Your task to perform on an android device: change notifications settings Image 0: 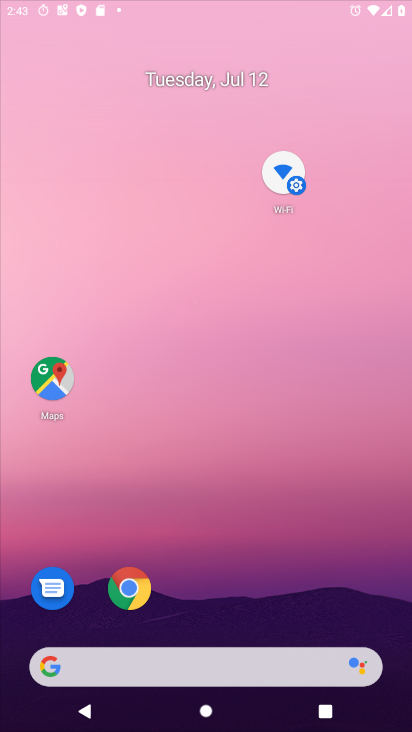
Step 0: click (308, 257)
Your task to perform on an android device: change notifications settings Image 1: 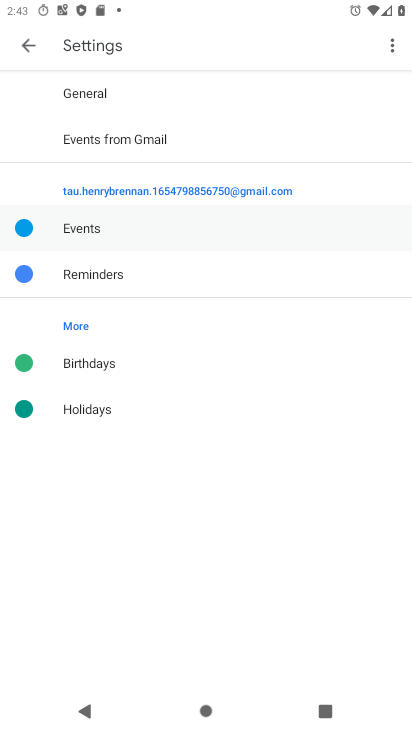
Step 1: drag from (186, 601) to (259, 54)
Your task to perform on an android device: change notifications settings Image 2: 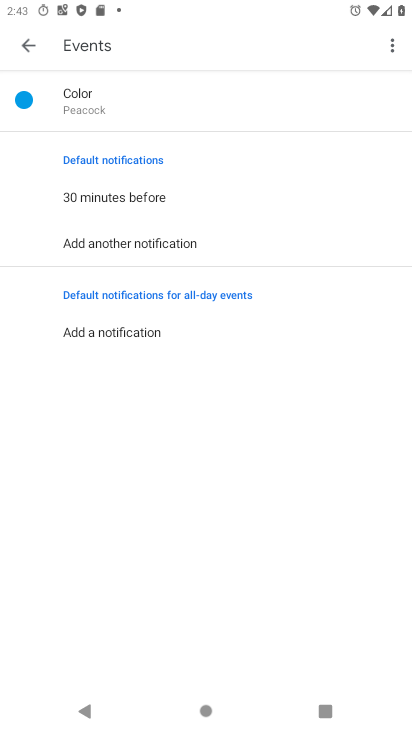
Step 2: press home button
Your task to perform on an android device: change notifications settings Image 3: 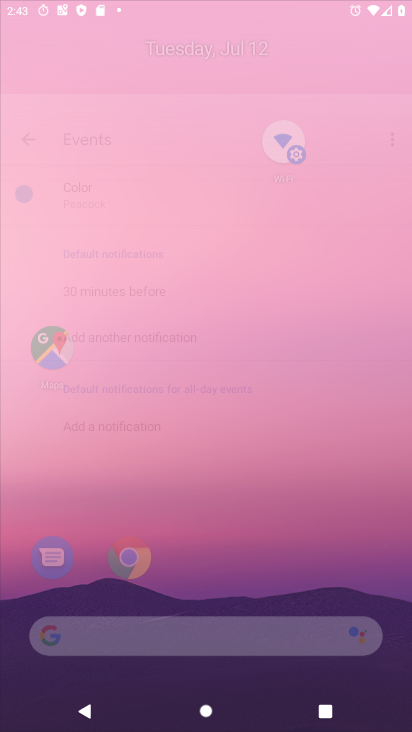
Step 3: drag from (152, 587) to (276, 65)
Your task to perform on an android device: change notifications settings Image 4: 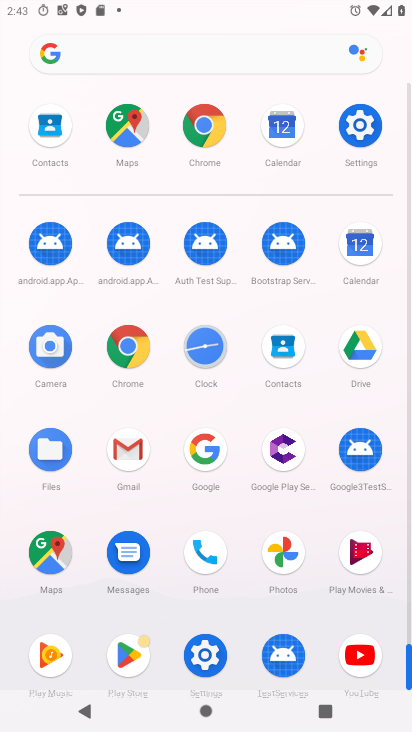
Step 4: click (354, 131)
Your task to perform on an android device: change notifications settings Image 5: 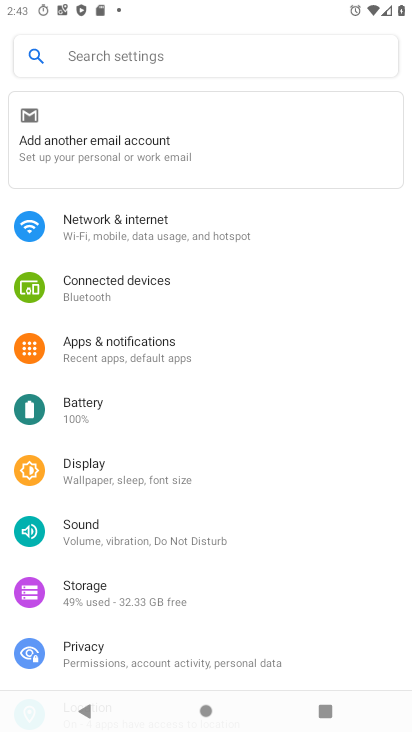
Step 5: click (126, 350)
Your task to perform on an android device: change notifications settings Image 6: 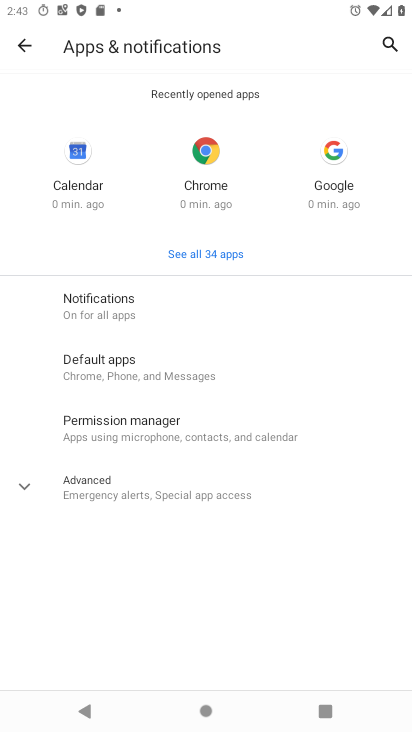
Step 6: click (133, 312)
Your task to perform on an android device: change notifications settings Image 7: 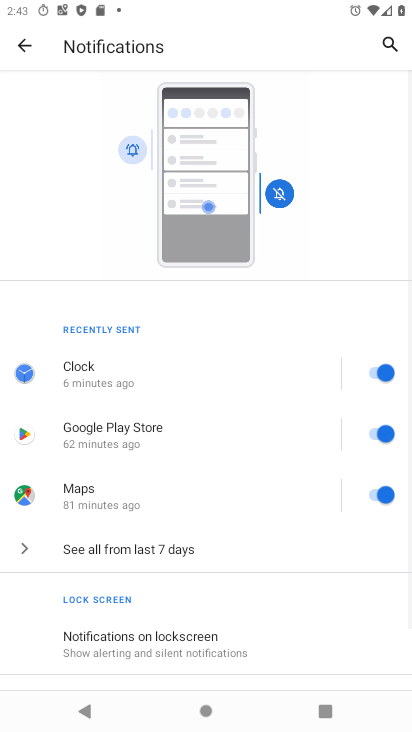
Step 7: drag from (225, 537) to (296, 270)
Your task to perform on an android device: change notifications settings Image 8: 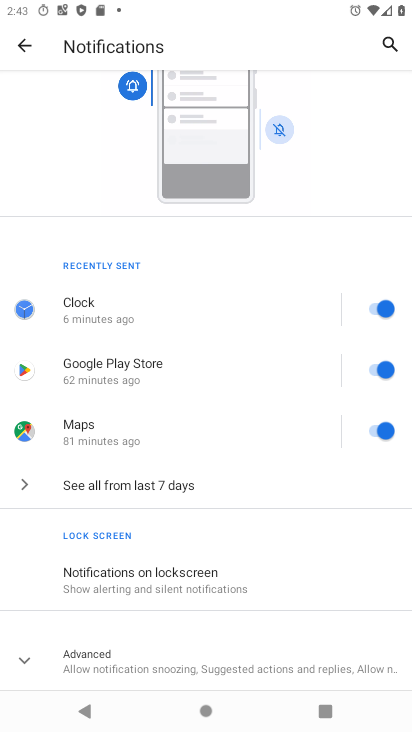
Step 8: drag from (238, 600) to (270, 296)
Your task to perform on an android device: change notifications settings Image 9: 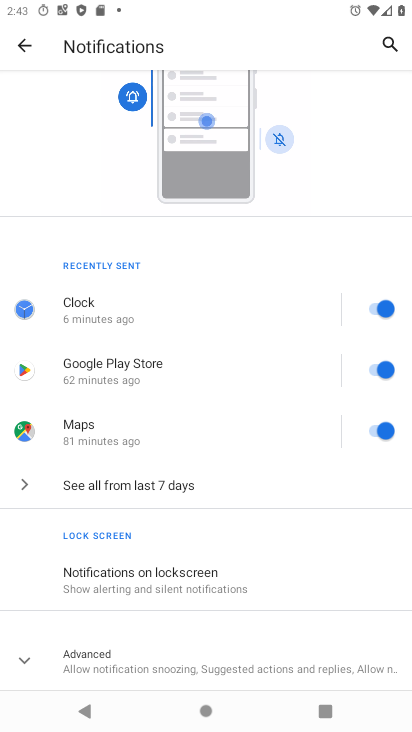
Step 9: drag from (169, 618) to (270, 298)
Your task to perform on an android device: change notifications settings Image 10: 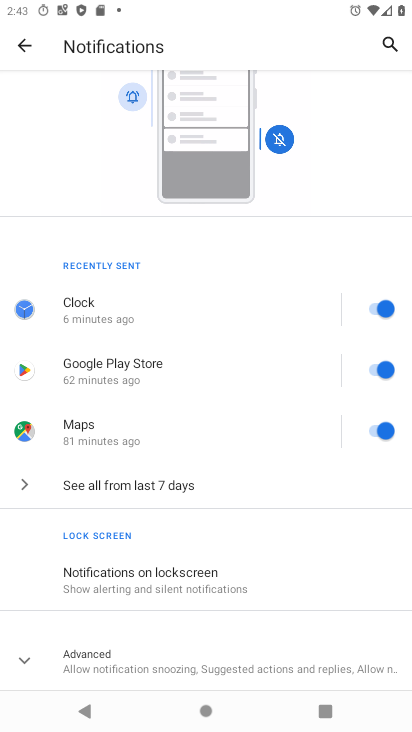
Step 10: click (387, 362)
Your task to perform on an android device: change notifications settings Image 11: 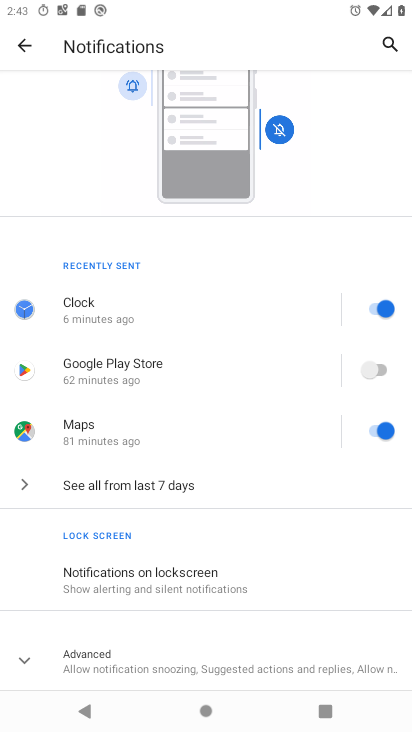
Step 11: task complete